Your task to perform on an android device: toggle improve location accuracy Image 0: 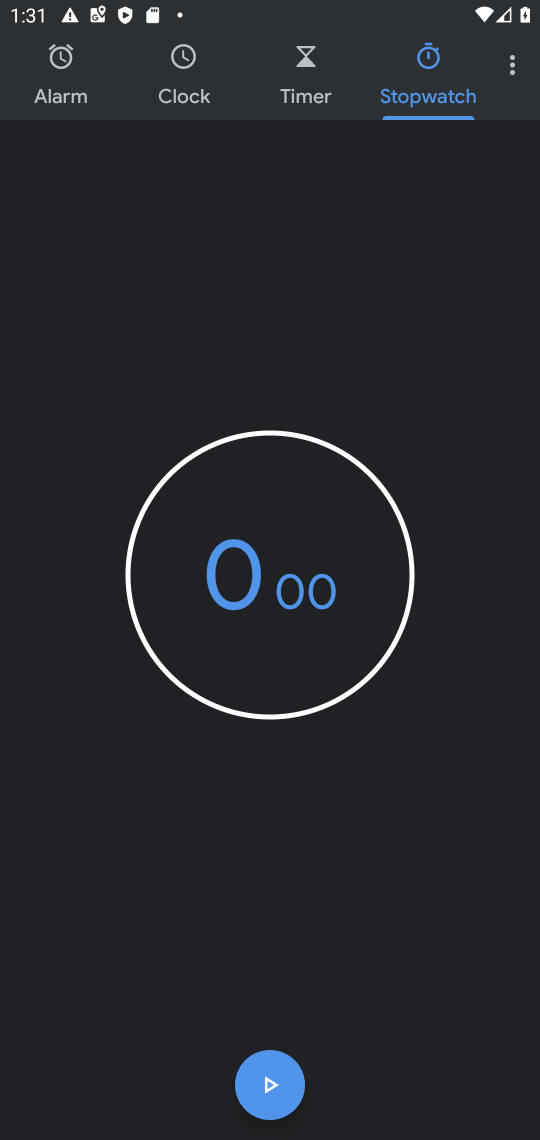
Step 0: press home button
Your task to perform on an android device: toggle improve location accuracy Image 1: 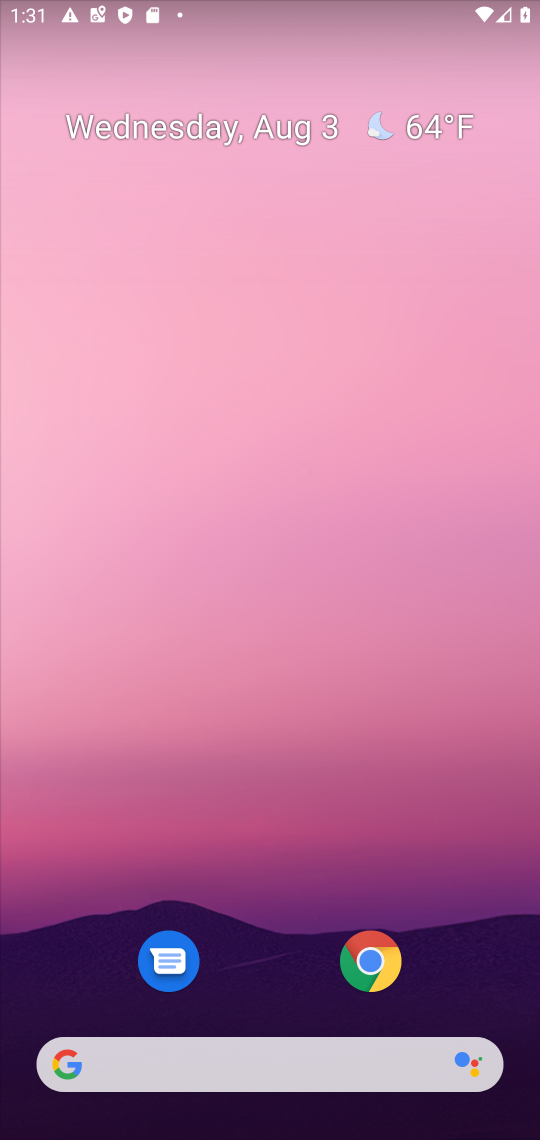
Step 1: drag from (291, 982) to (271, 52)
Your task to perform on an android device: toggle improve location accuracy Image 2: 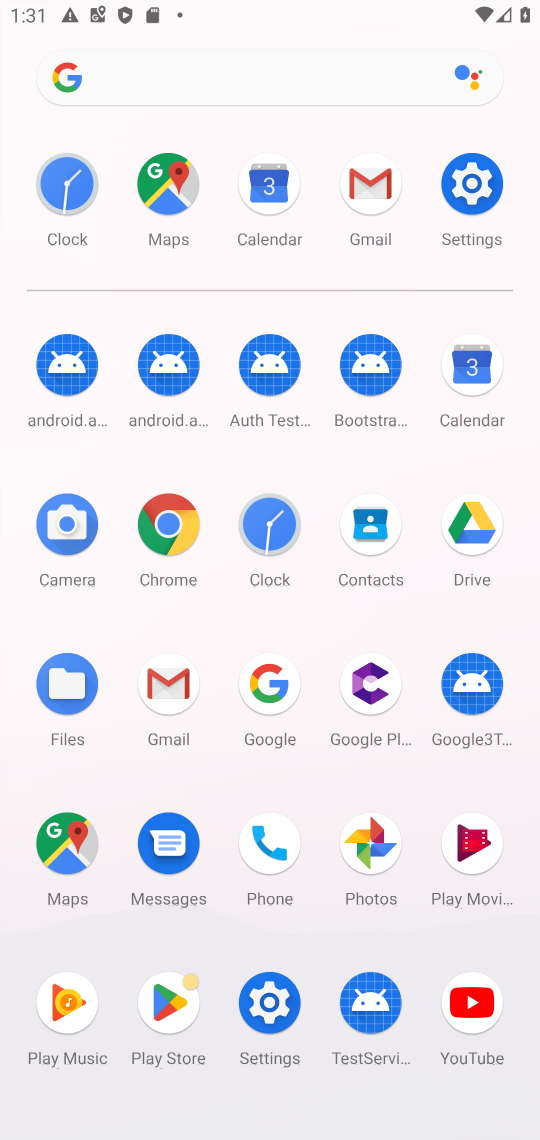
Step 2: click (472, 186)
Your task to perform on an android device: toggle improve location accuracy Image 3: 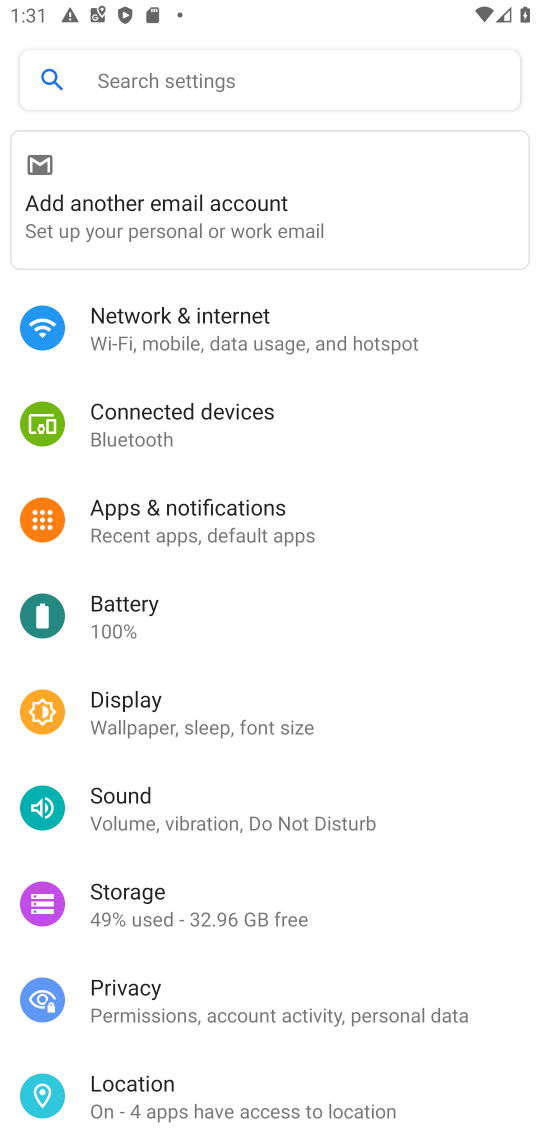
Step 3: click (133, 1087)
Your task to perform on an android device: toggle improve location accuracy Image 4: 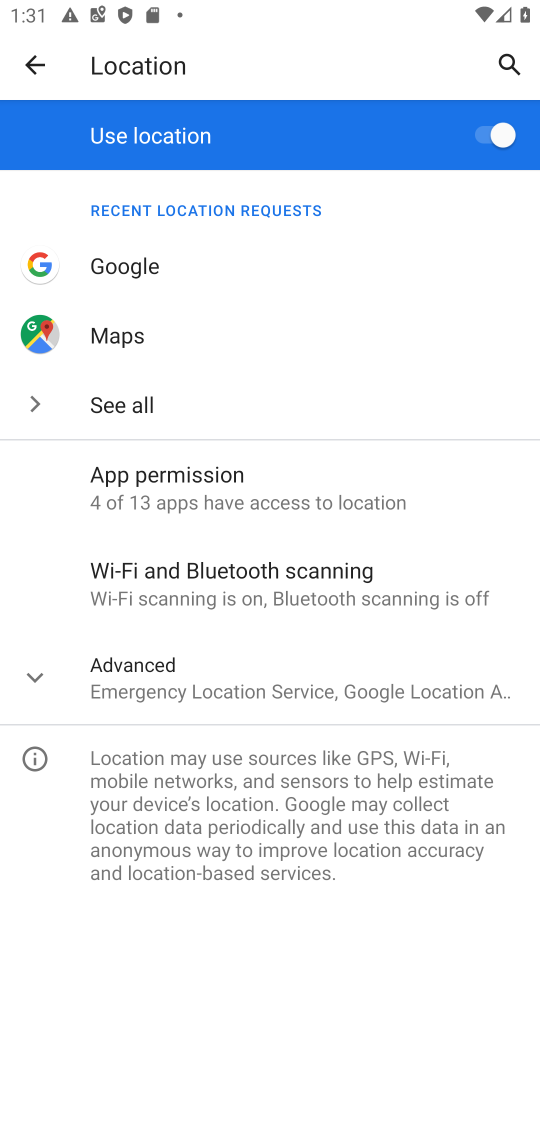
Step 4: click (45, 676)
Your task to perform on an android device: toggle improve location accuracy Image 5: 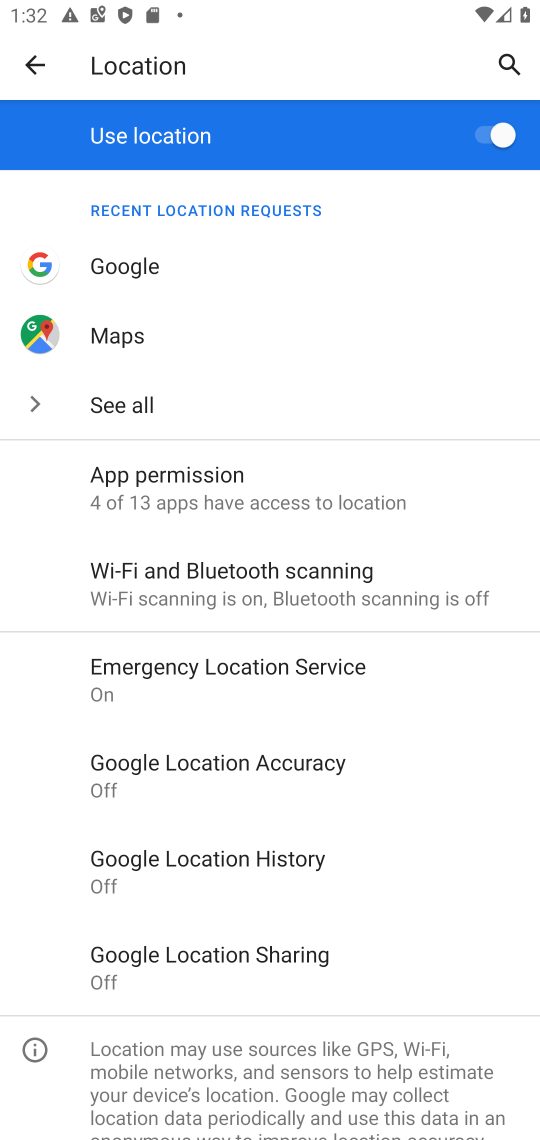
Step 5: click (206, 773)
Your task to perform on an android device: toggle improve location accuracy Image 6: 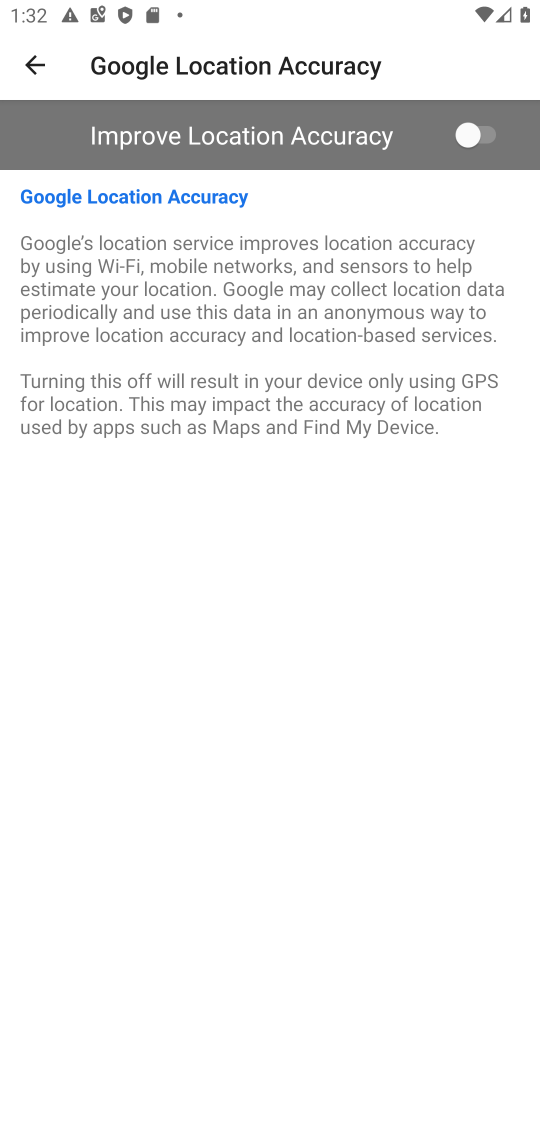
Step 6: click (464, 143)
Your task to perform on an android device: toggle improve location accuracy Image 7: 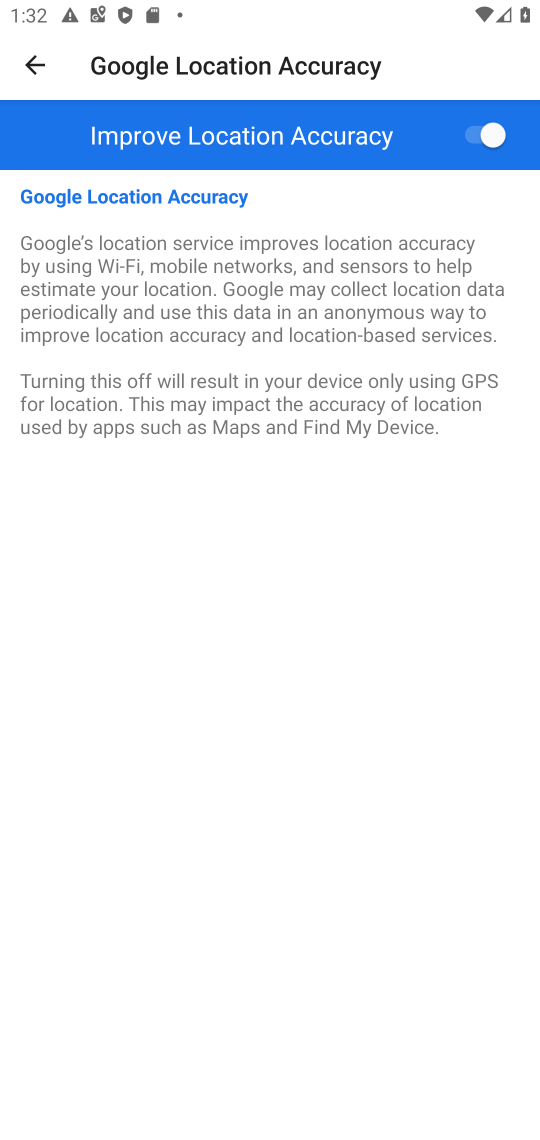
Step 7: task complete